Your task to perform on an android device: turn off javascript in the chrome app Image 0: 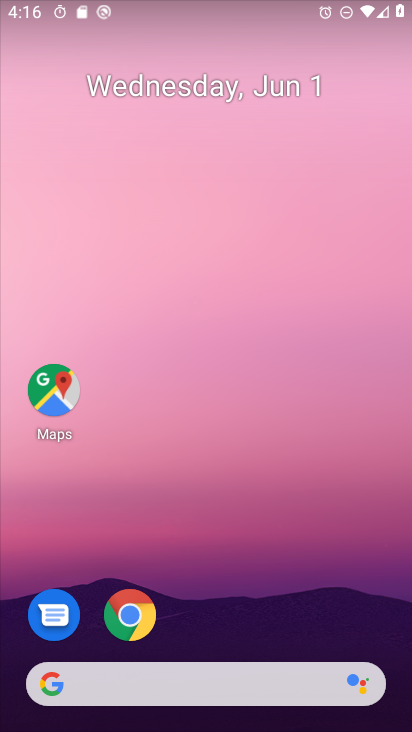
Step 0: drag from (218, 608) to (281, 15)
Your task to perform on an android device: turn off javascript in the chrome app Image 1: 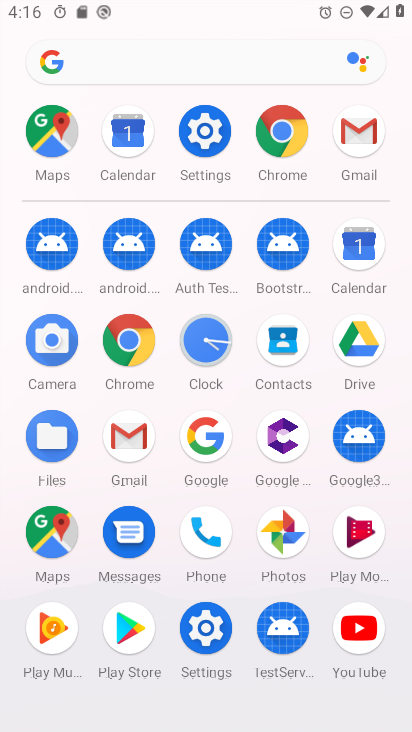
Step 1: click (123, 370)
Your task to perform on an android device: turn off javascript in the chrome app Image 2: 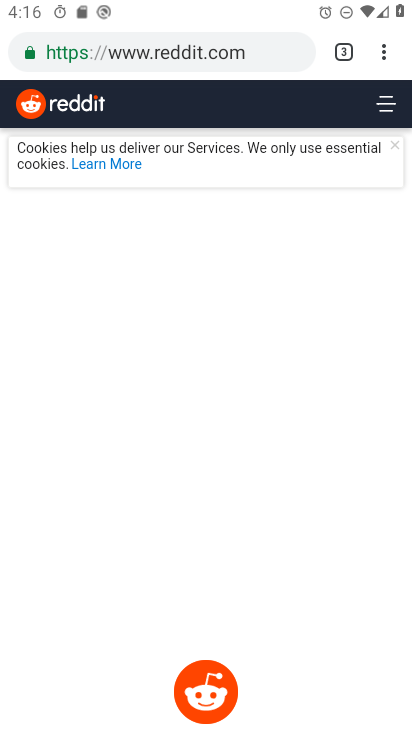
Step 2: drag from (373, 28) to (195, 625)
Your task to perform on an android device: turn off javascript in the chrome app Image 3: 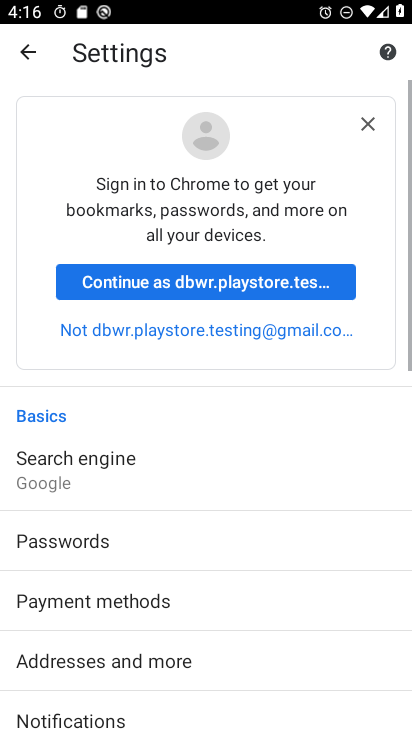
Step 3: drag from (182, 485) to (250, 129)
Your task to perform on an android device: turn off javascript in the chrome app Image 4: 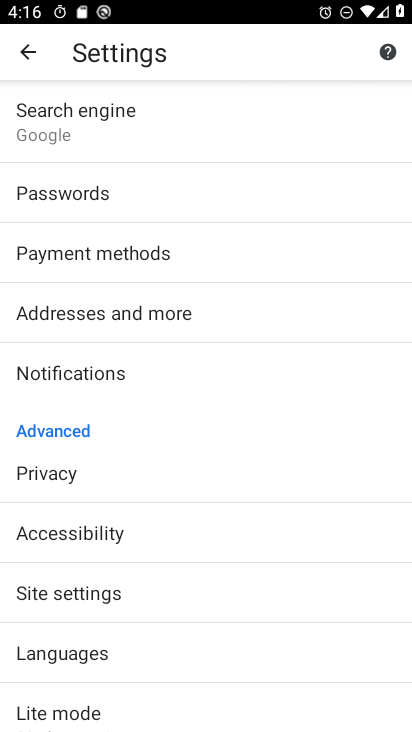
Step 4: click (95, 605)
Your task to perform on an android device: turn off javascript in the chrome app Image 5: 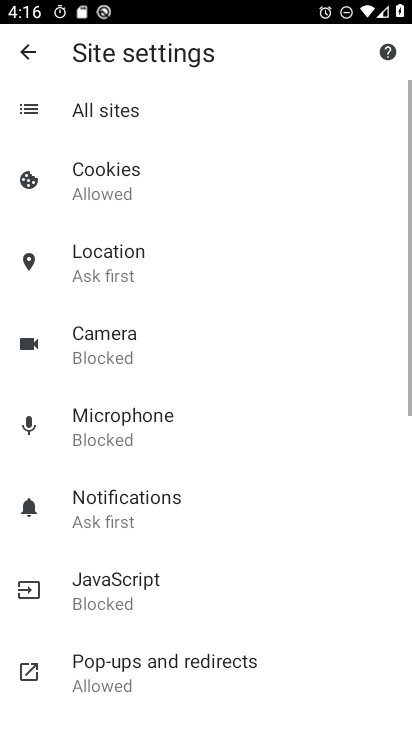
Step 5: click (129, 577)
Your task to perform on an android device: turn off javascript in the chrome app Image 6: 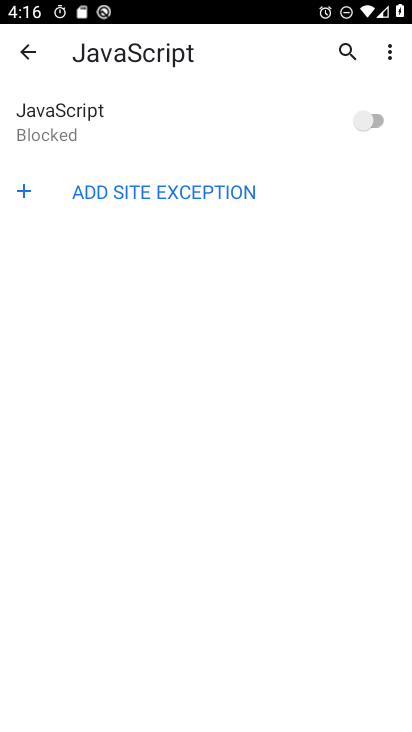
Step 6: task complete